Your task to perform on an android device: Go to sound settings Image 0: 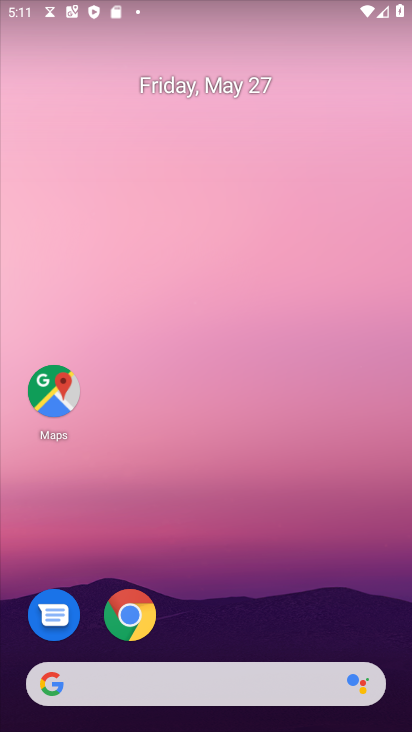
Step 0: drag from (330, 573) to (162, 2)
Your task to perform on an android device: Go to sound settings Image 1: 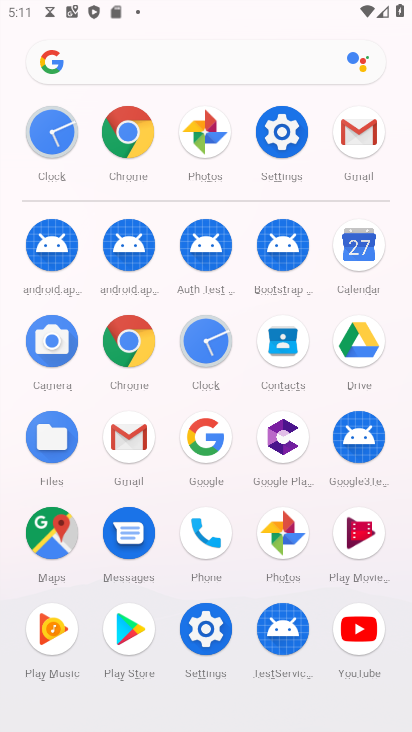
Step 1: click (211, 629)
Your task to perform on an android device: Go to sound settings Image 2: 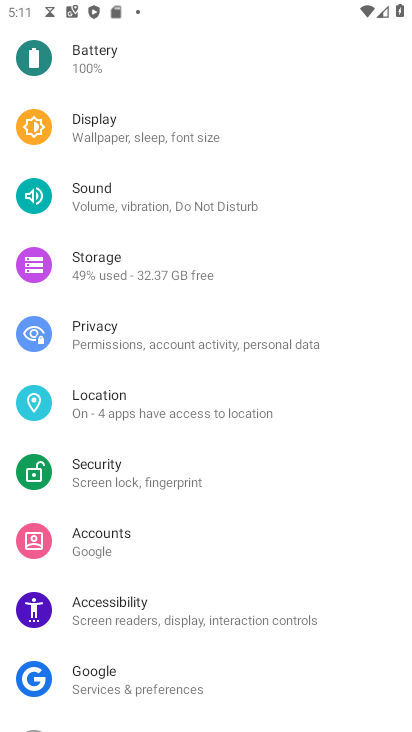
Step 2: click (151, 199)
Your task to perform on an android device: Go to sound settings Image 3: 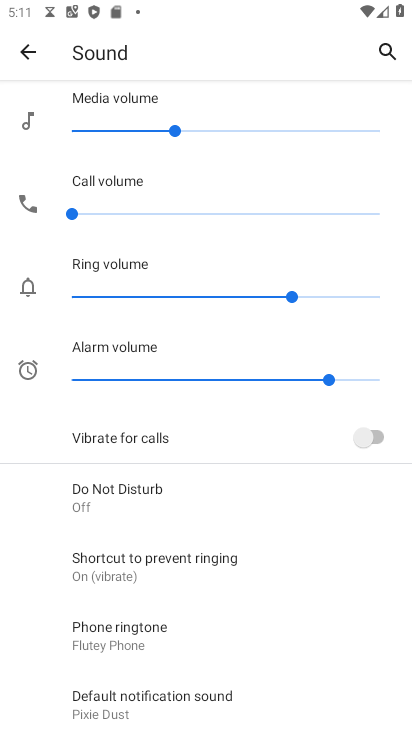
Step 3: task complete